Your task to perform on an android device: Go to notification settings Image 0: 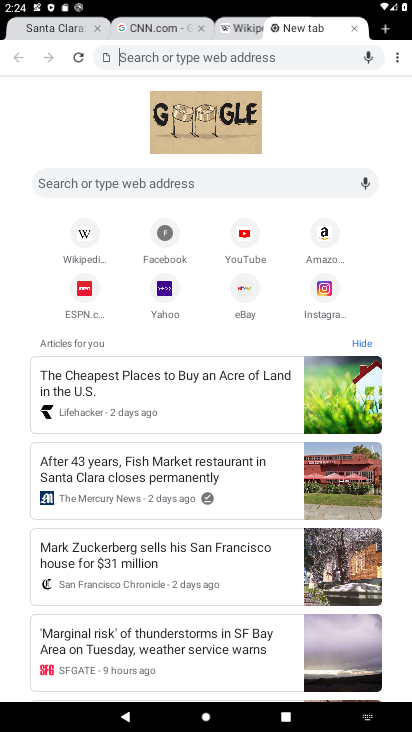
Step 0: press home button
Your task to perform on an android device: Go to notification settings Image 1: 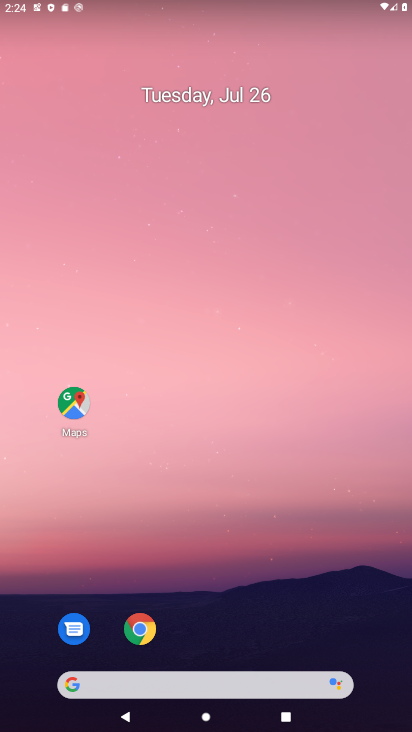
Step 1: drag from (221, 641) to (233, 250)
Your task to perform on an android device: Go to notification settings Image 2: 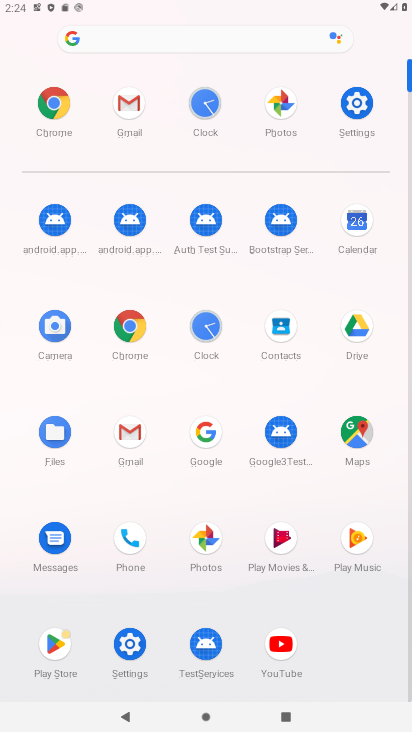
Step 2: click (345, 95)
Your task to perform on an android device: Go to notification settings Image 3: 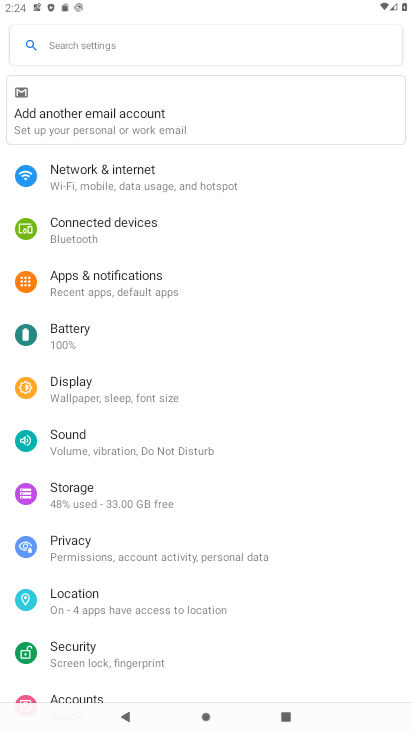
Step 3: click (150, 279)
Your task to perform on an android device: Go to notification settings Image 4: 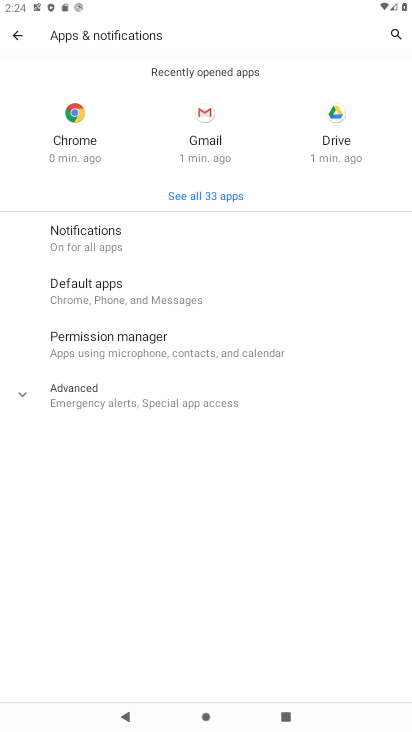
Step 4: click (127, 243)
Your task to perform on an android device: Go to notification settings Image 5: 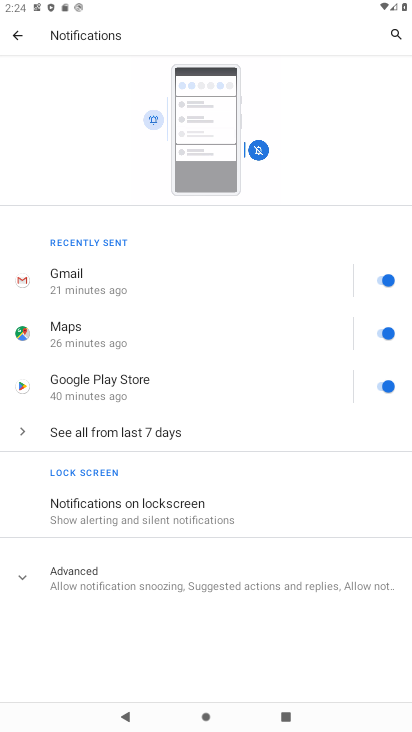
Step 5: task complete